Your task to perform on an android device: turn on location history Image 0: 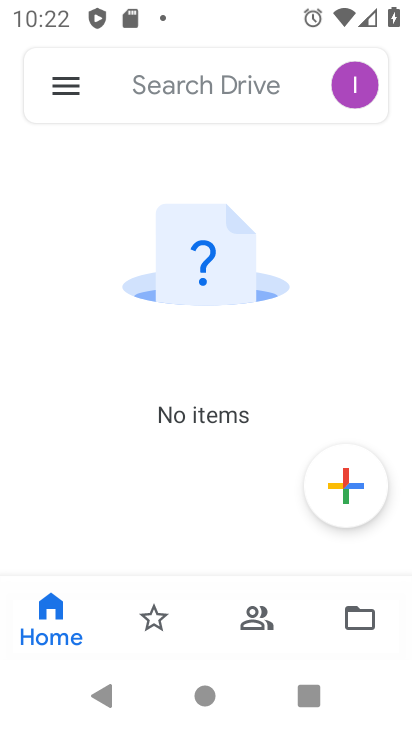
Step 0: press back button
Your task to perform on an android device: turn on location history Image 1: 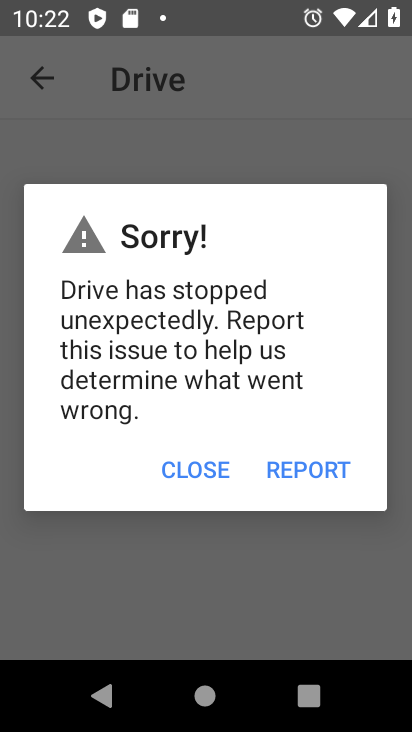
Step 1: press home button
Your task to perform on an android device: turn on location history Image 2: 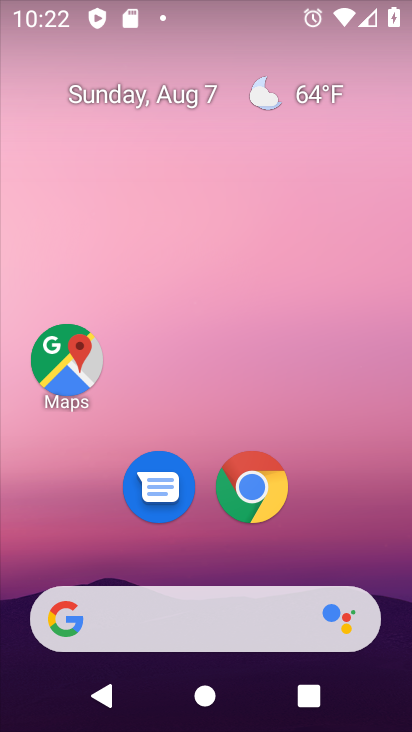
Step 2: drag from (392, 670) to (392, 136)
Your task to perform on an android device: turn on location history Image 3: 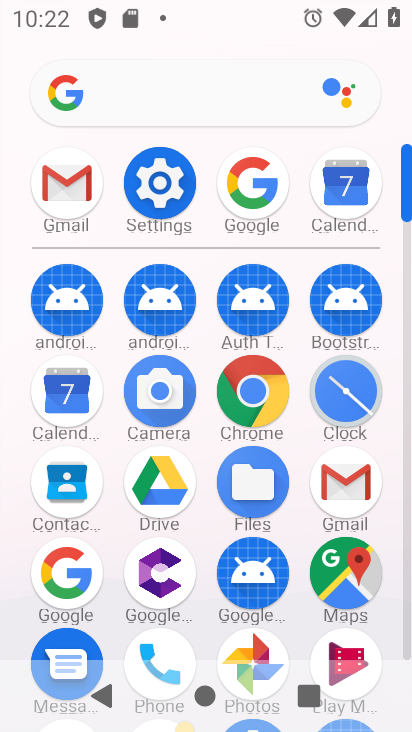
Step 3: click (177, 180)
Your task to perform on an android device: turn on location history Image 4: 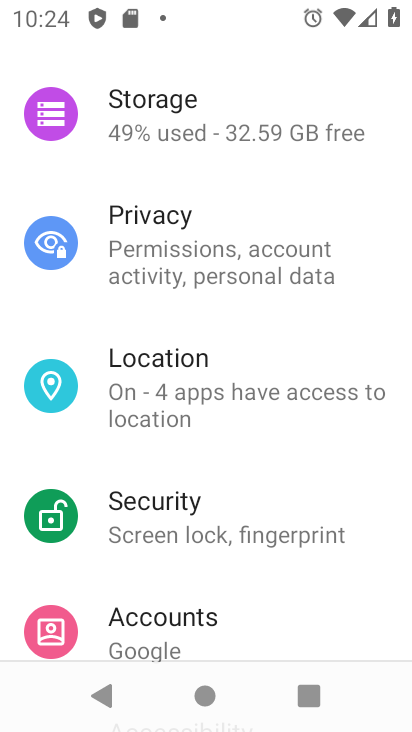
Step 4: click (155, 377)
Your task to perform on an android device: turn on location history Image 5: 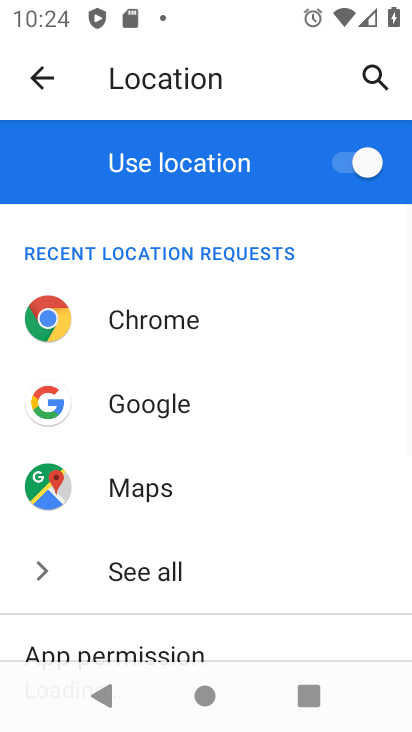
Step 5: drag from (320, 467) to (295, 152)
Your task to perform on an android device: turn on location history Image 6: 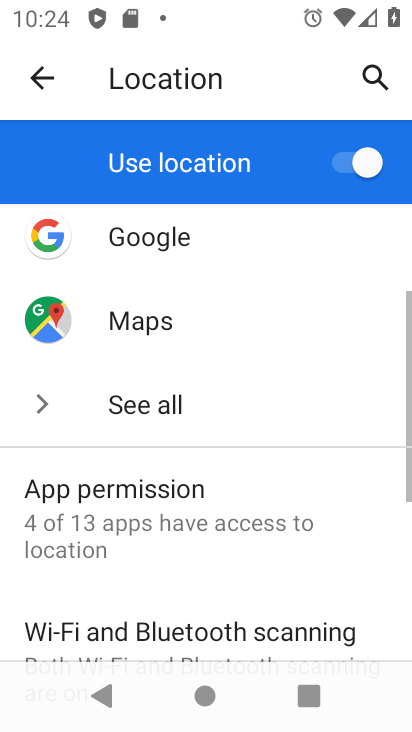
Step 6: drag from (296, 564) to (301, 308)
Your task to perform on an android device: turn on location history Image 7: 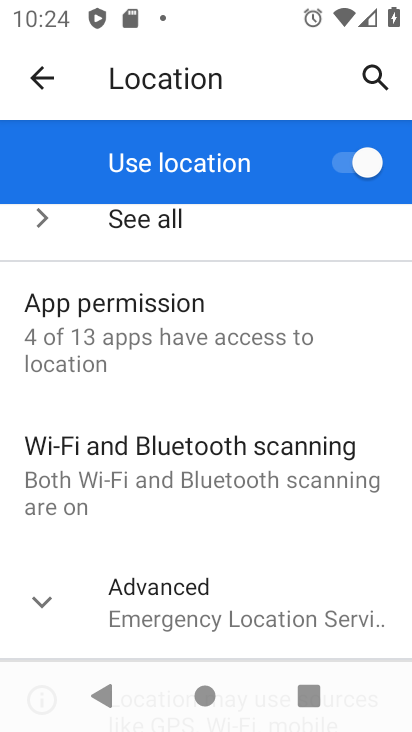
Step 7: click (40, 601)
Your task to perform on an android device: turn on location history Image 8: 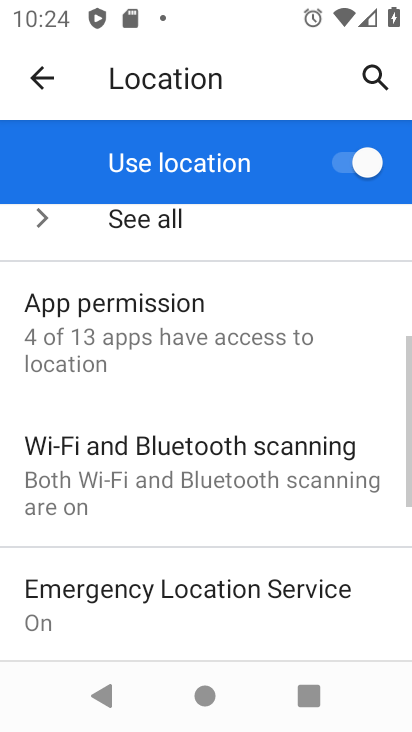
Step 8: drag from (288, 517) to (290, 232)
Your task to perform on an android device: turn on location history Image 9: 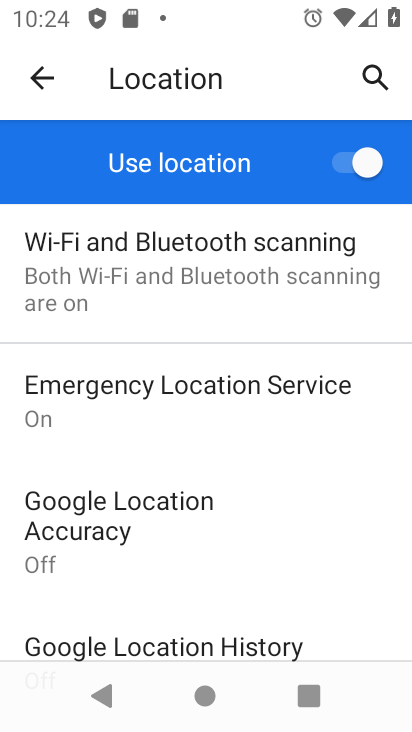
Step 9: drag from (247, 587) to (265, 289)
Your task to perform on an android device: turn on location history Image 10: 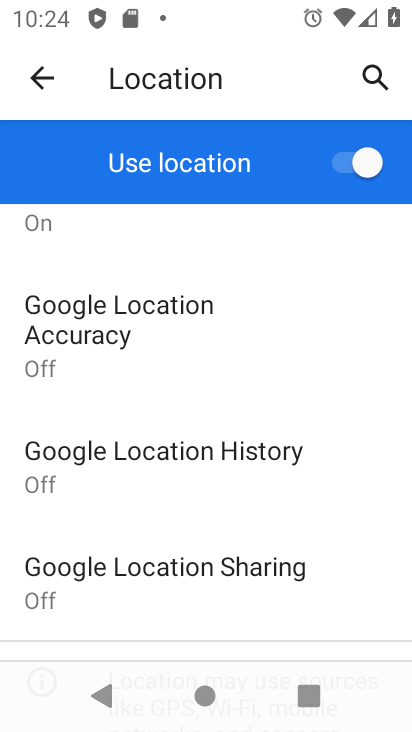
Step 10: click (160, 475)
Your task to perform on an android device: turn on location history Image 11: 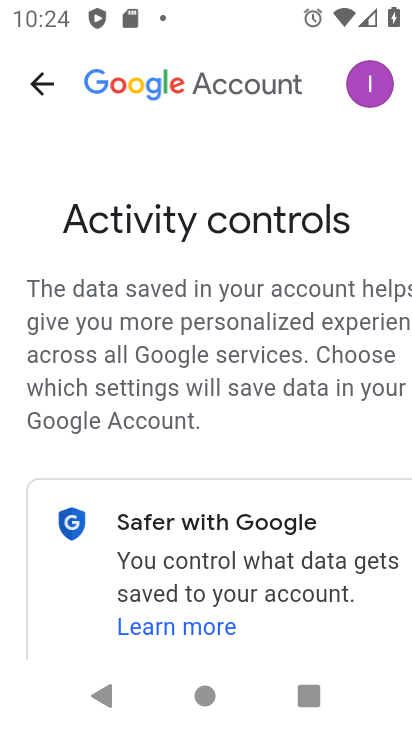
Step 11: drag from (286, 592) to (250, 227)
Your task to perform on an android device: turn on location history Image 12: 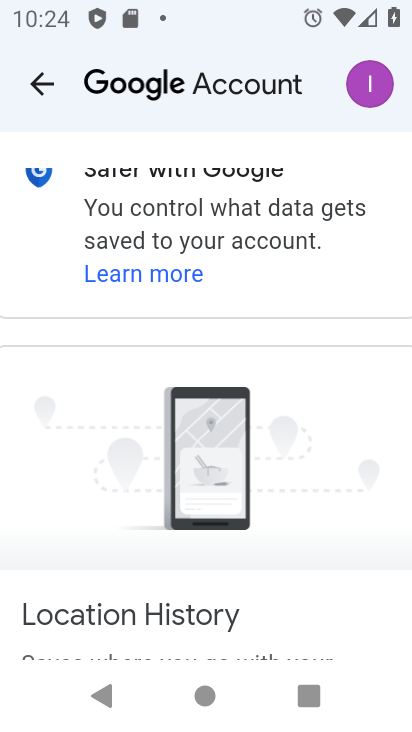
Step 12: drag from (264, 612) to (235, 179)
Your task to perform on an android device: turn on location history Image 13: 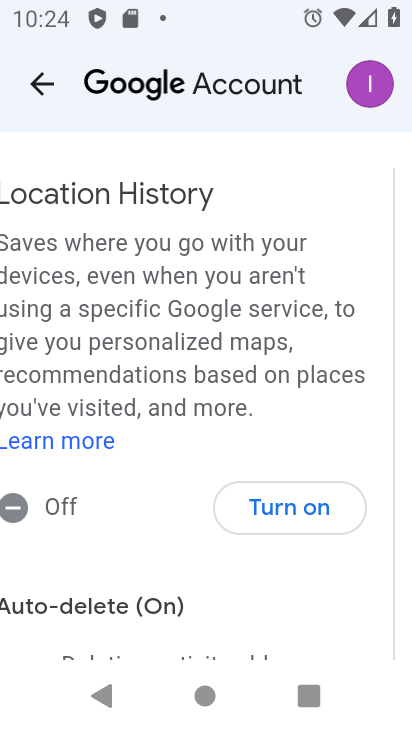
Step 13: click (260, 517)
Your task to perform on an android device: turn on location history Image 14: 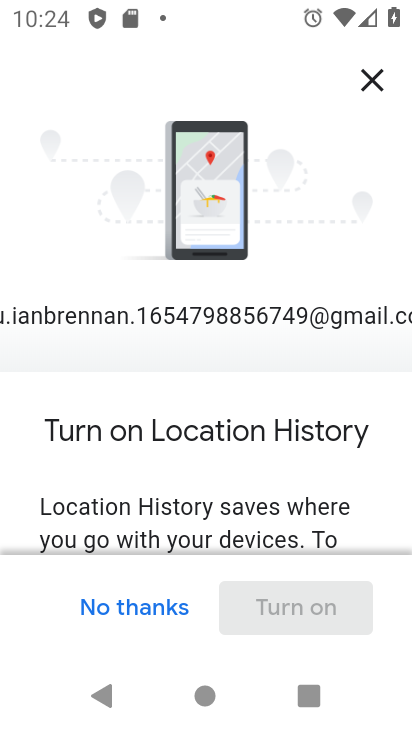
Step 14: drag from (253, 492) to (231, 112)
Your task to perform on an android device: turn on location history Image 15: 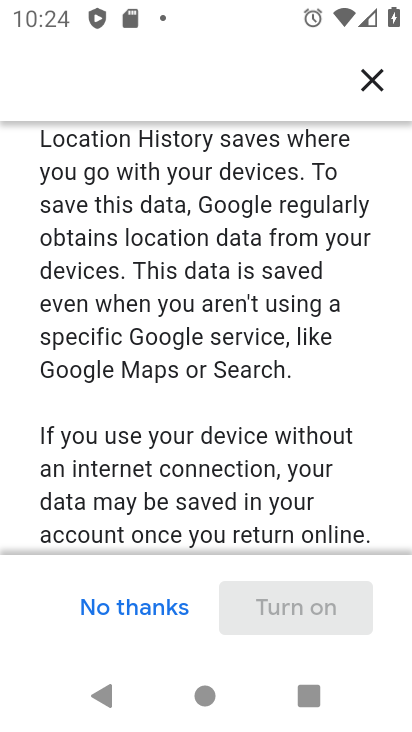
Step 15: drag from (286, 492) to (266, 94)
Your task to perform on an android device: turn on location history Image 16: 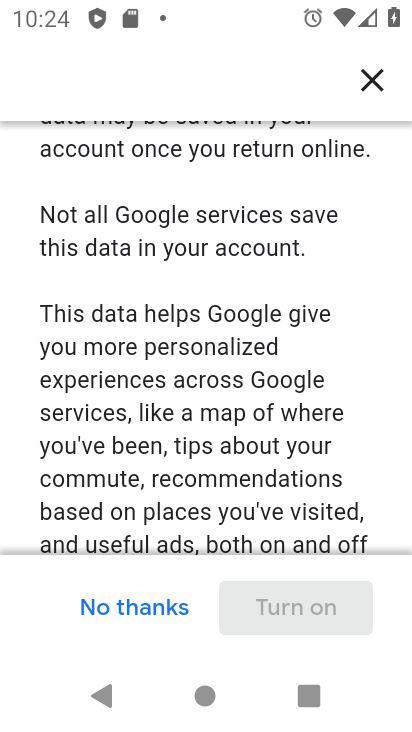
Step 16: drag from (308, 518) to (284, 80)
Your task to perform on an android device: turn on location history Image 17: 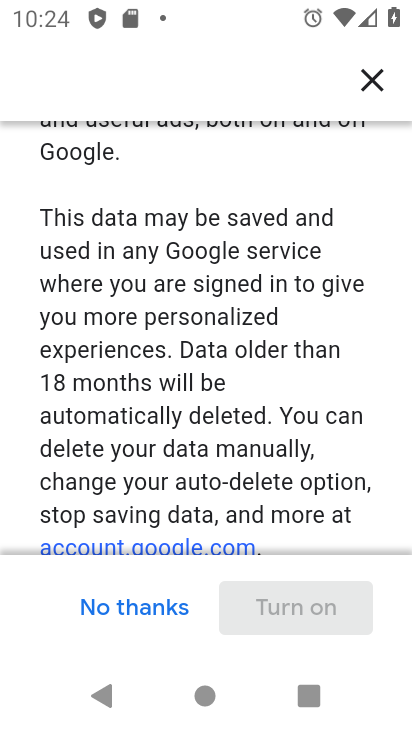
Step 17: drag from (306, 544) to (266, 140)
Your task to perform on an android device: turn on location history Image 18: 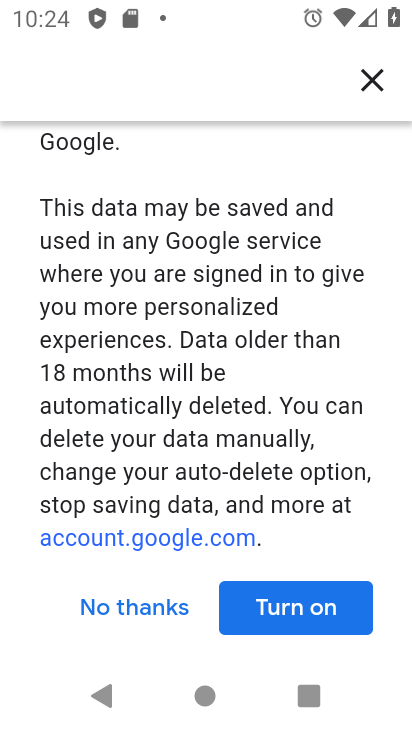
Step 18: click (265, 602)
Your task to perform on an android device: turn on location history Image 19: 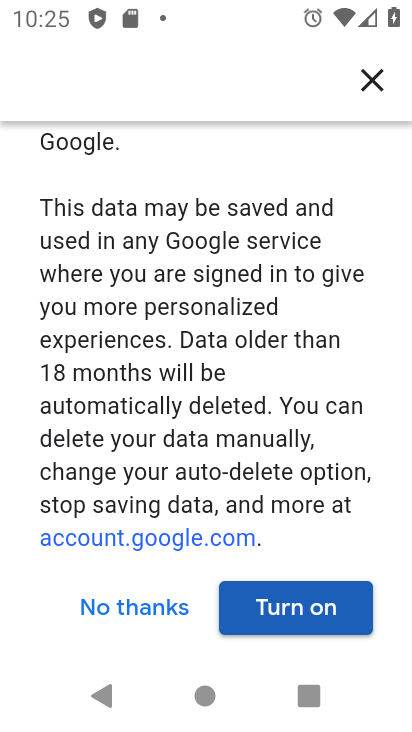
Step 19: click (266, 606)
Your task to perform on an android device: turn on location history Image 20: 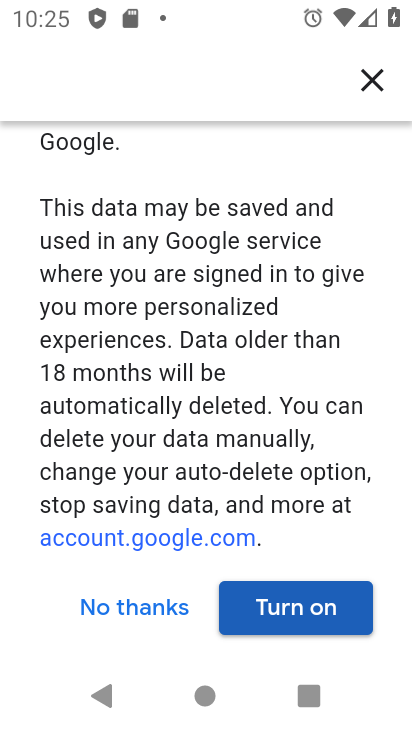
Step 20: click (266, 606)
Your task to perform on an android device: turn on location history Image 21: 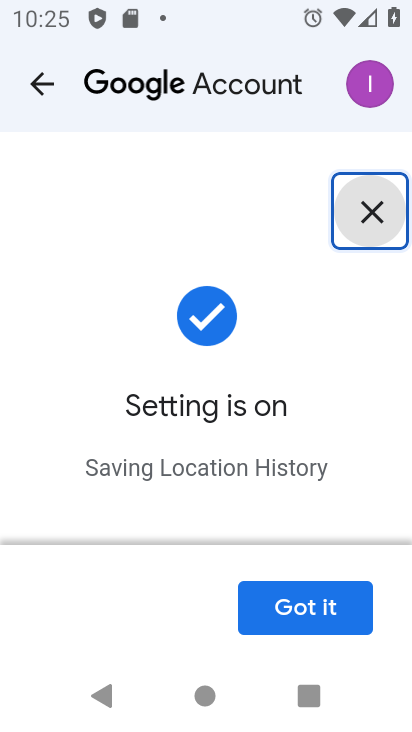
Step 21: click (284, 605)
Your task to perform on an android device: turn on location history Image 22: 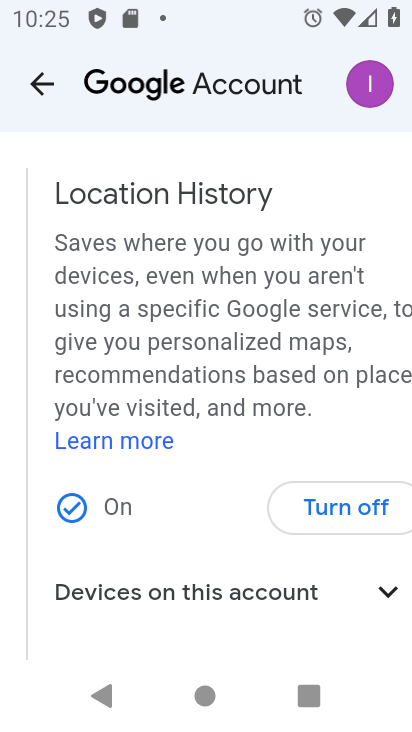
Step 22: click (348, 505)
Your task to perform on an android device: turn on location history Image 23: 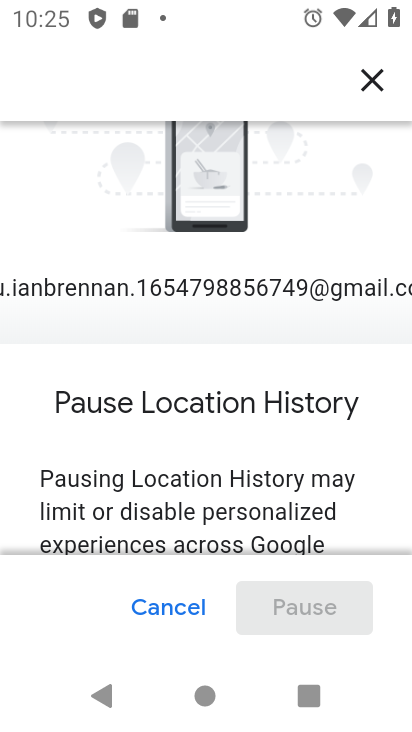
Step 23: click (160, 598)
Your task to perform on an android device: turn on location history Image 24: 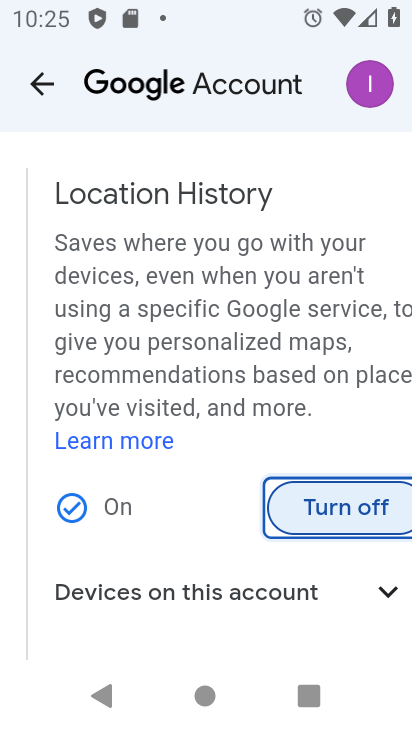
Step 24: task complete